Your task to perform on an android device: turn off priority inbox in the gmail app Image 0: 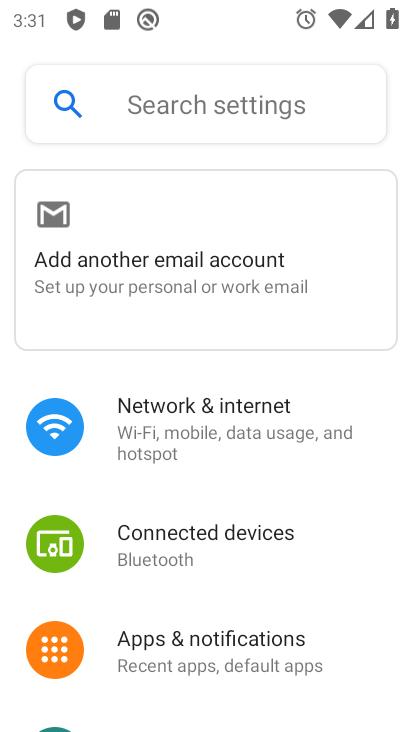
Step 0: drag from (178, 663) to (291, 271)
Your task to perform on an android device: turn off priority inbox in the gmail app Image 1: 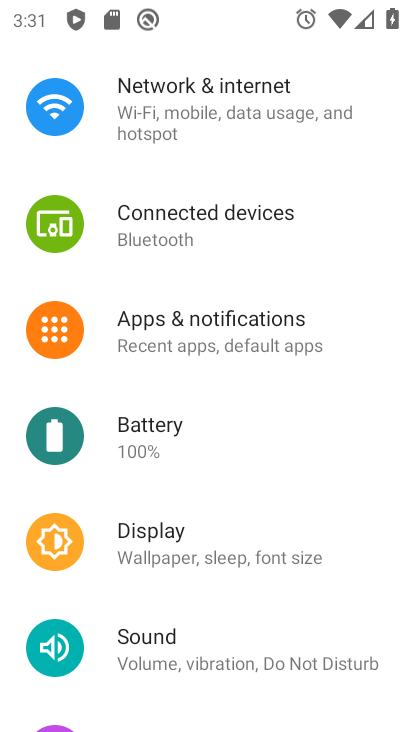
Step 1: press home button
Your task to perform on an android device: turn off priority inbox in the gmail app Image 2: 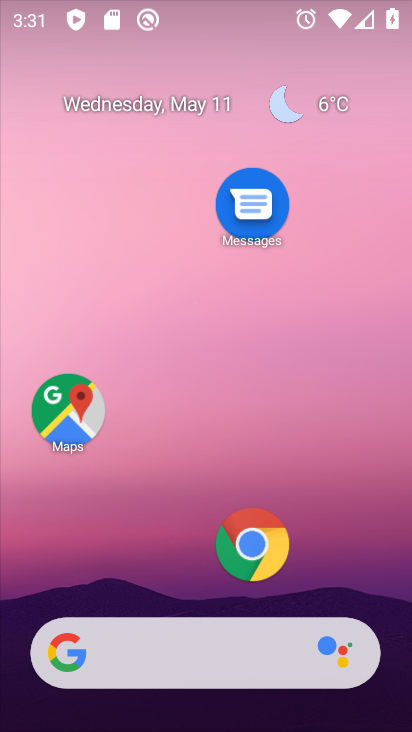
Step 2: drag from (151, 546) to (249, 2)
Your task to perform on an android device: turn off priority inbox in the gmail app Image 3: 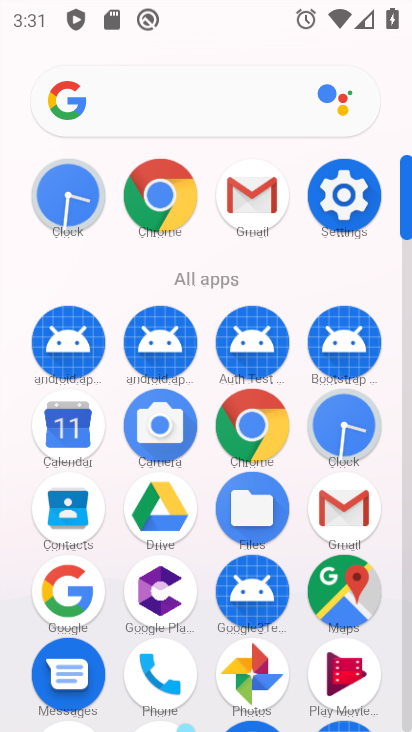
Step 3: click (262, 201)
Your task to perform on an android device: turn off priority inbox in the gmail app Image 4: 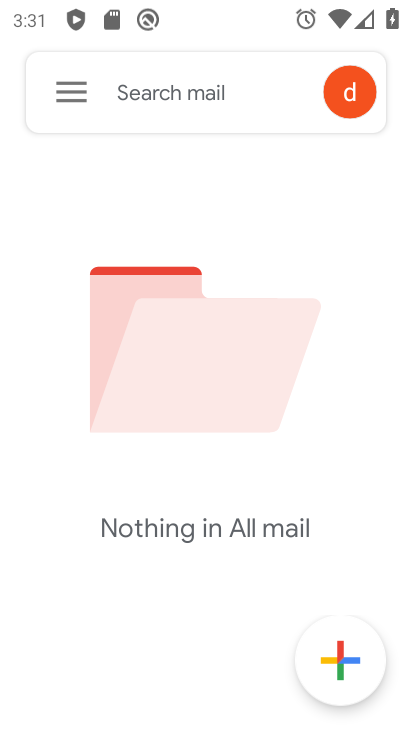
Step 4: click (94, 79)
Your task to perform on an android device: turn off priority inbox in the gmail app Image 5: 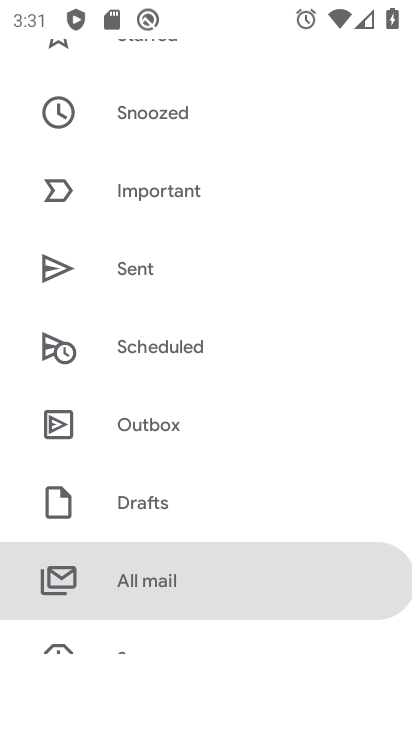
Step 5: drag from (181, 585) to (335, 74)
Your task to perform on an android device: turn off priority inbox in the gmail app Image 6: 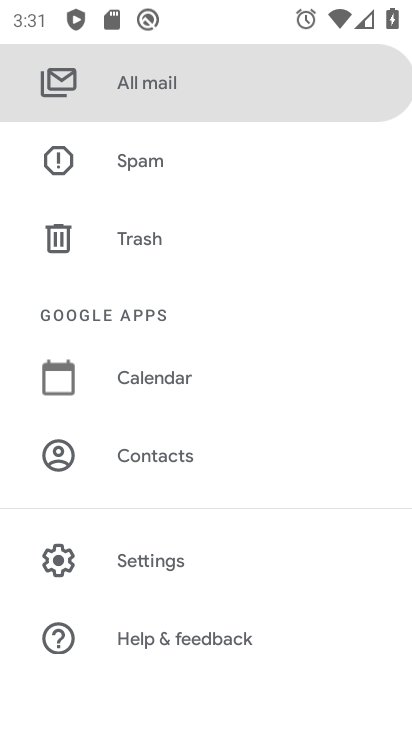
Step 6: click (161, 559)
Your task to perform on an android device: turn off priority inbox in the gmail app Image 7: 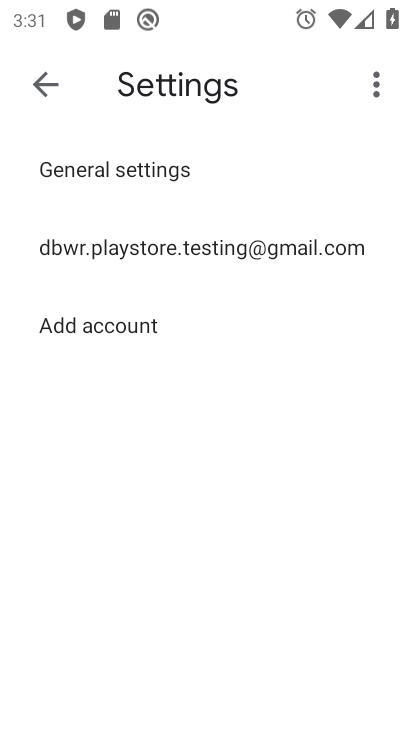
Step 7: click (198, 243)
Your task to perform on an android device: turn off priority inbox in the gmail app Image 8: 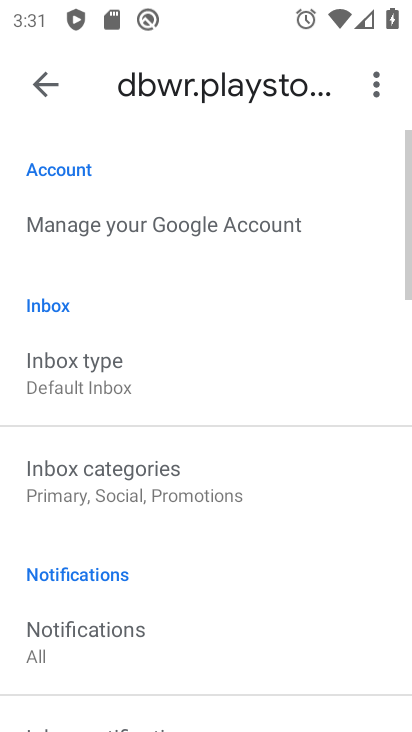
Step 8: click (118, 367)
Your task to perform on an android device: turn off priority inbox in the gmail app Image 9: 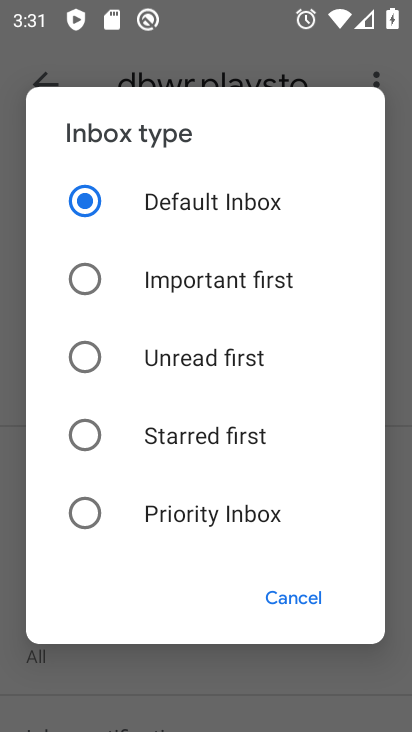
Step 9: task complete